Your task to perform on an android device: Clear all items from cart on newegg. Add "acer nitro" to the cart on newegg Image 0: 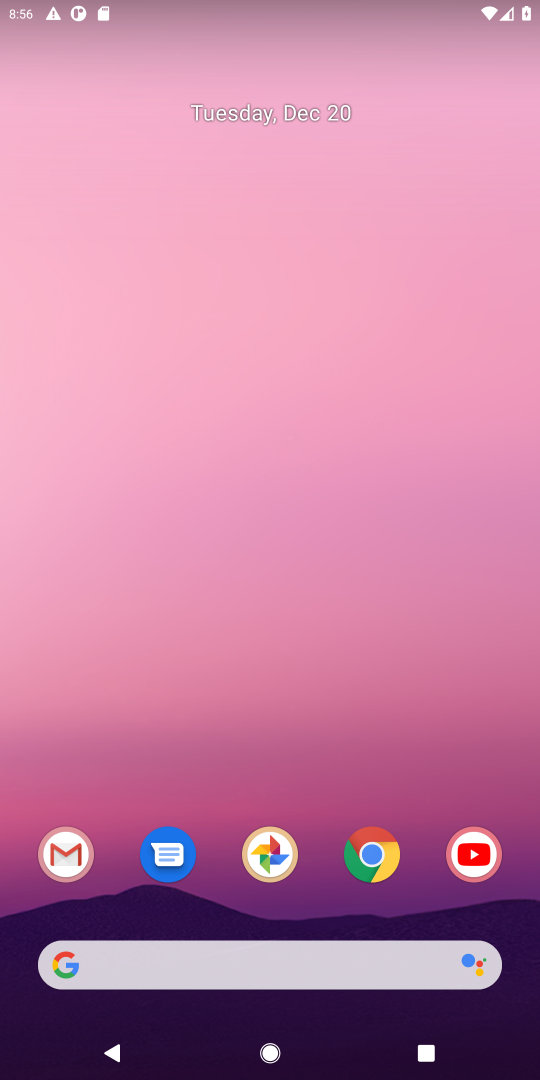
Step 0: click (372, 856)
Your task to perform on an android device: Clear all items from cart on newegg. Add "acer nitro" to the cart on newegg Image 1: 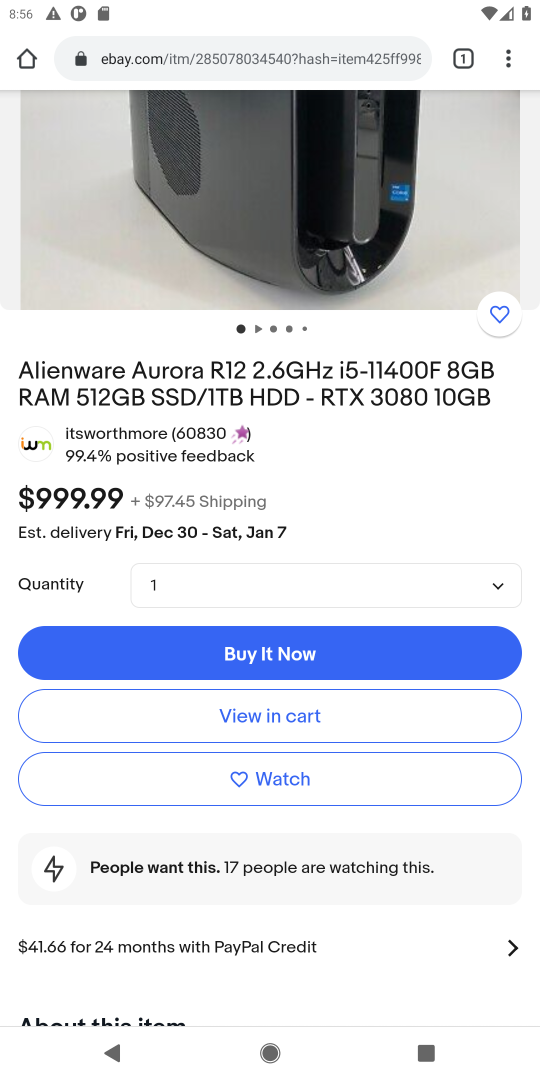
Step 1: click (175, 58)
Your task to perform on an android device: Clear all items from cart on newegg. Add "acer nitro" to the cart on newegg Image 2: 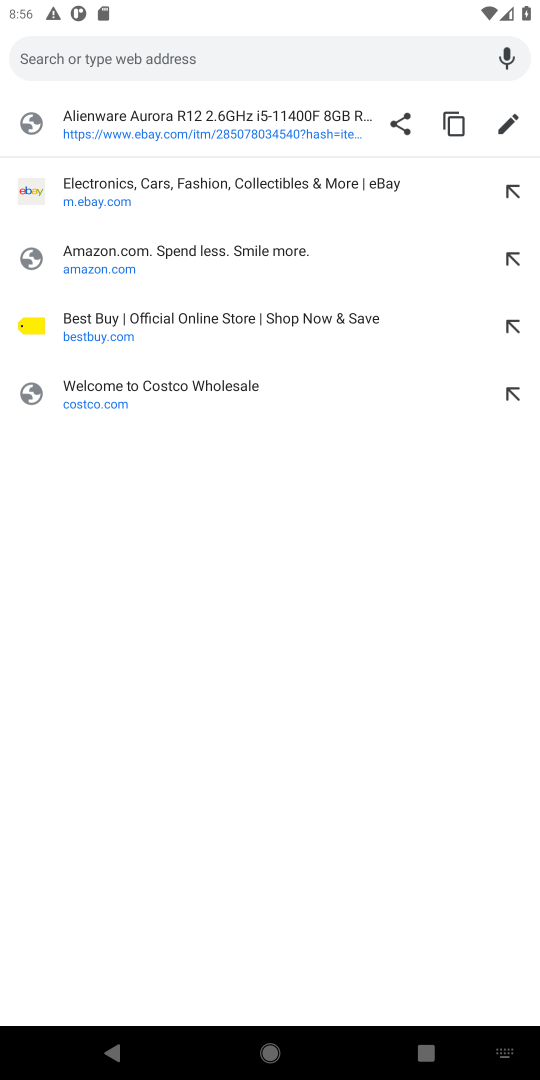
Step 2: type "newegg.com"
Your task to perform on an android device: Clear all items from cart on newegg. Add "acer nitro" to the cart on newegg Image 3: 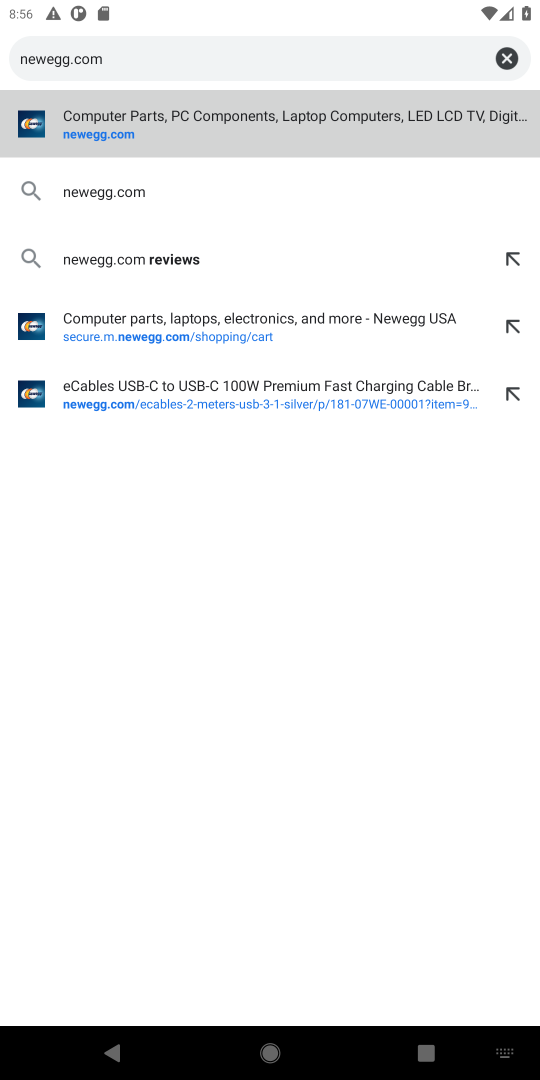
Step 3: click (73, 122)
Your task to perform on an android device: Clear all items from cart on newegg. Add "acer nitro" to the cart on newegg Image 4: 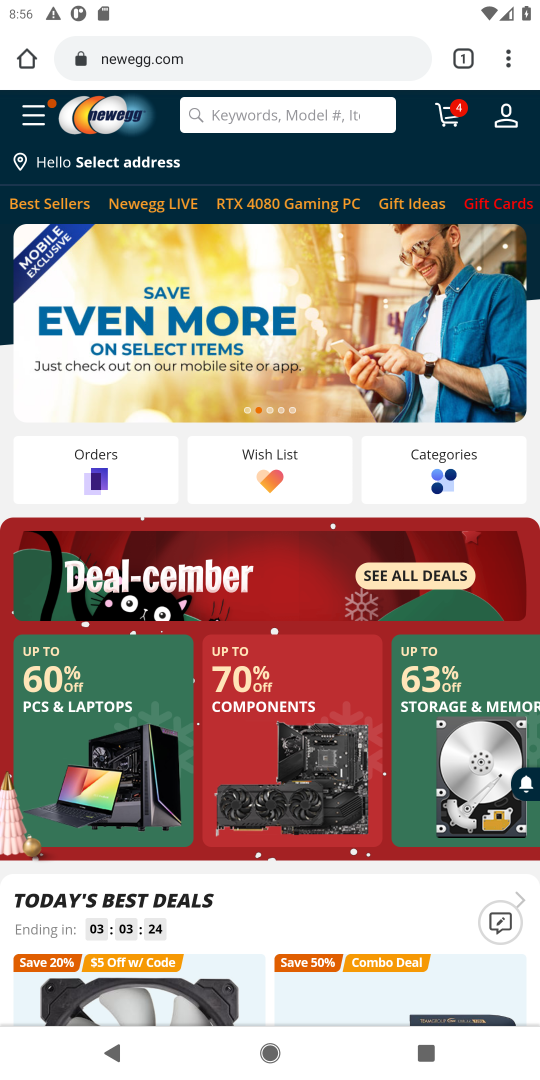
Step 4: click (454, 117)
Your task to perform on an android device: Clear all items from cart on newegg. Add "acer nitro" to the cart on newegg Image 5: 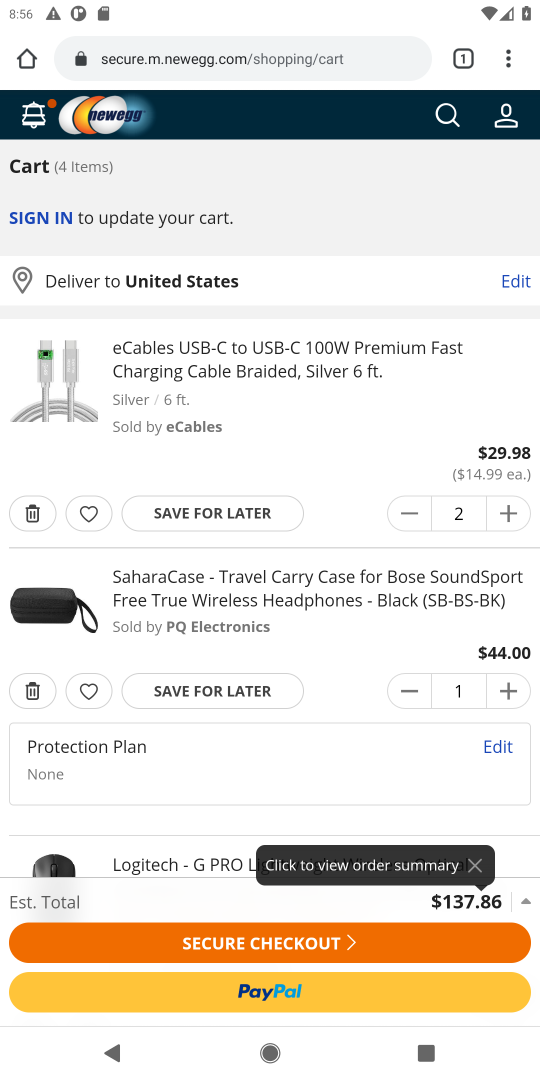
Step 5: click (28, 508)
Your task to perform on an android device: Clear all items from cart on newegg. Add "acer nitro" to the cart on newegg Image 6: 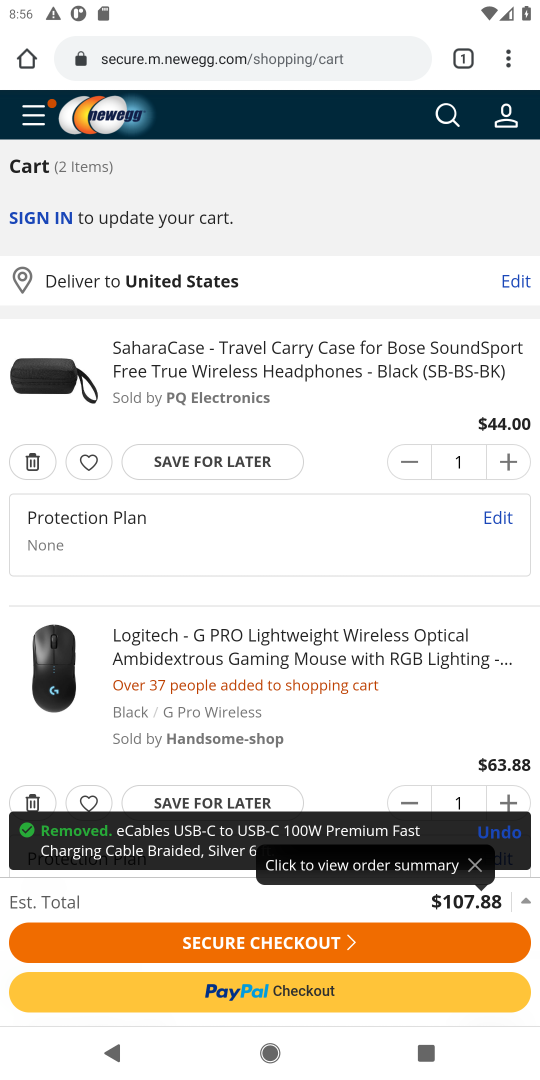
Step 6: click (31, 465)
Your task to perform on an android device: Clear all items from cart on newegg. Add "acer nitro" to the cart on newegg Image 7: 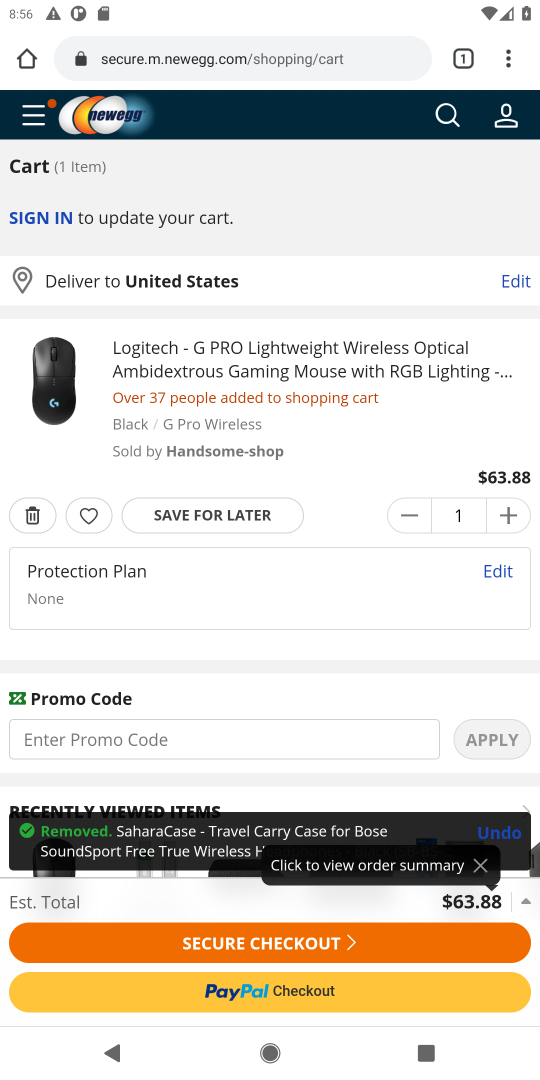
Step 7: click (29, 515)
Your task to perform on an android device: Clear all items from cart on newegg. Add "acer nitro" to the cart on newegg Image 8: 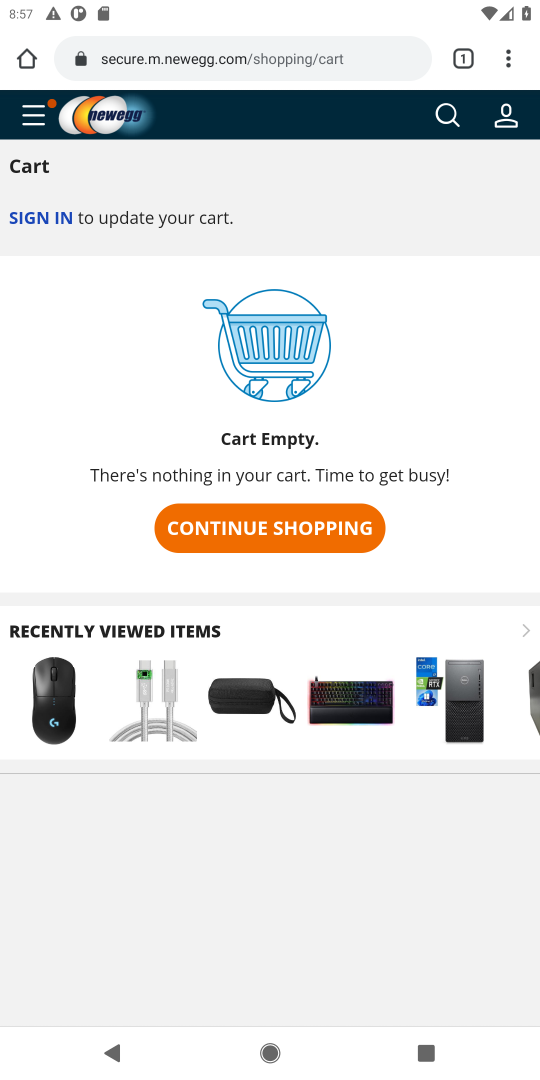
Step 8: click (441, 117)
Your task to perform on an android device: Clear all items from cart on newegg. Add "acer nitro" to the cart on newegg Image 9: 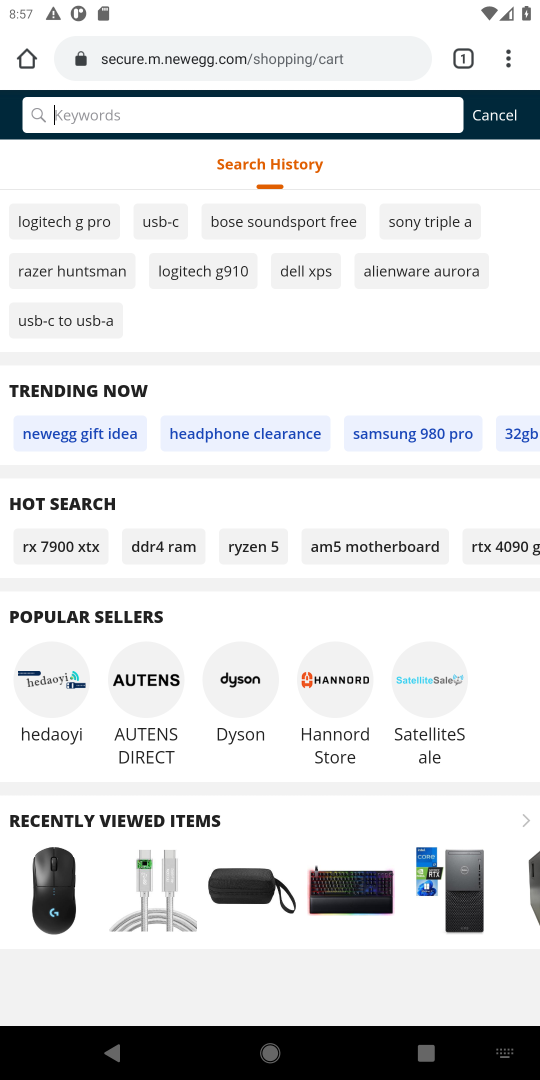
Step 9: type "acer nitro"
Your task to perform on an android device: Clear all items from cart on newegg. Add "acer nitro" to the cart on newegg Image 10: 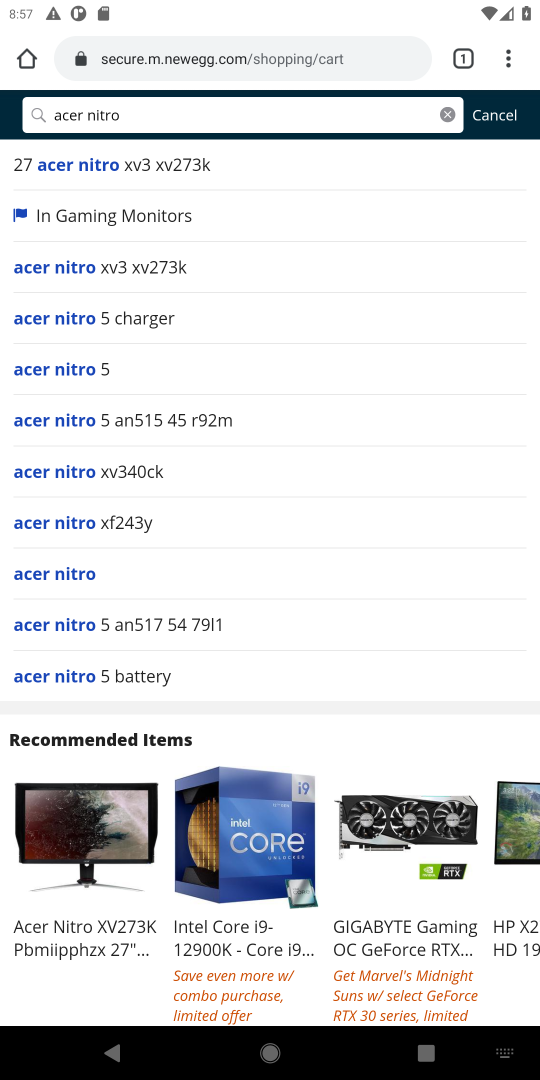
Step 10: click (48, 576)
Your task to perform on an android device: Clear all items from cart on newegg. Add "acer nitro" to the cart on newegg Image 11: 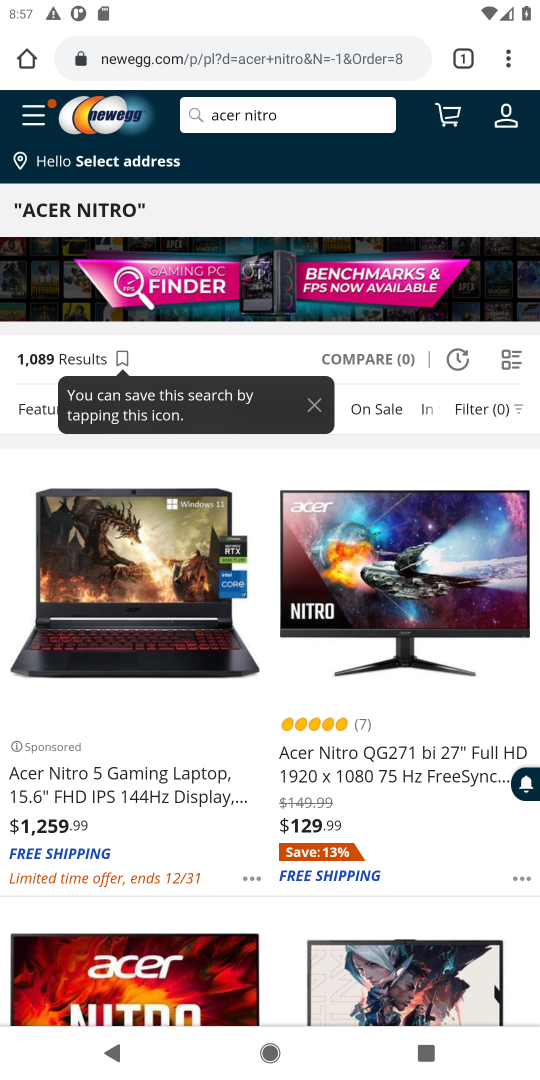
Step 11: click (77, 788)
Your task to perform on an android device: Clear all items from cart on newegg. Add "acer nitro" to the cart on newegg Image 12: 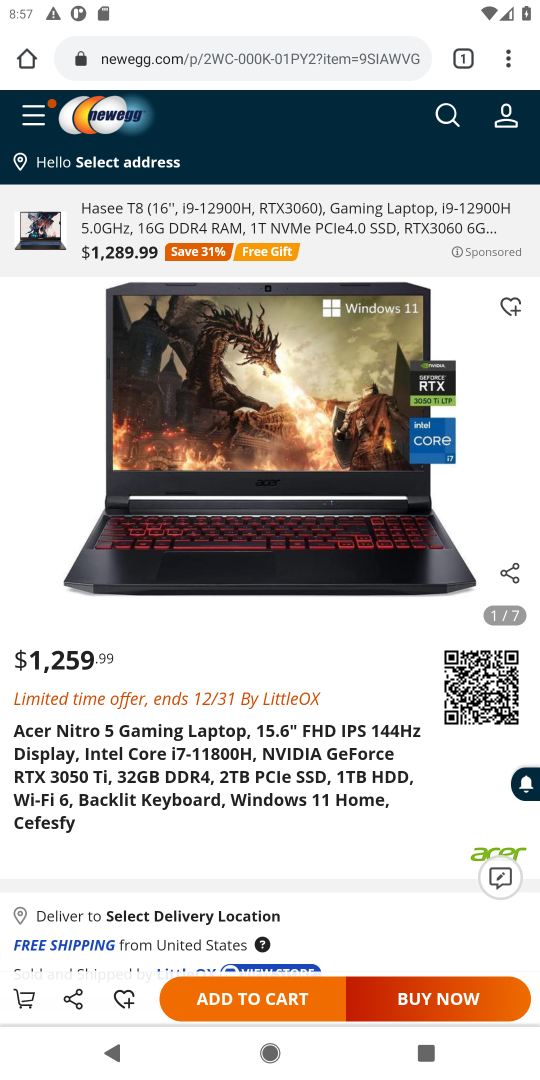
Step 12: click (241, 1001)
Your task to perform on an android device: Clear all items from cart on newegg. Add "acer nitro" to the cart on newegg Image 13: 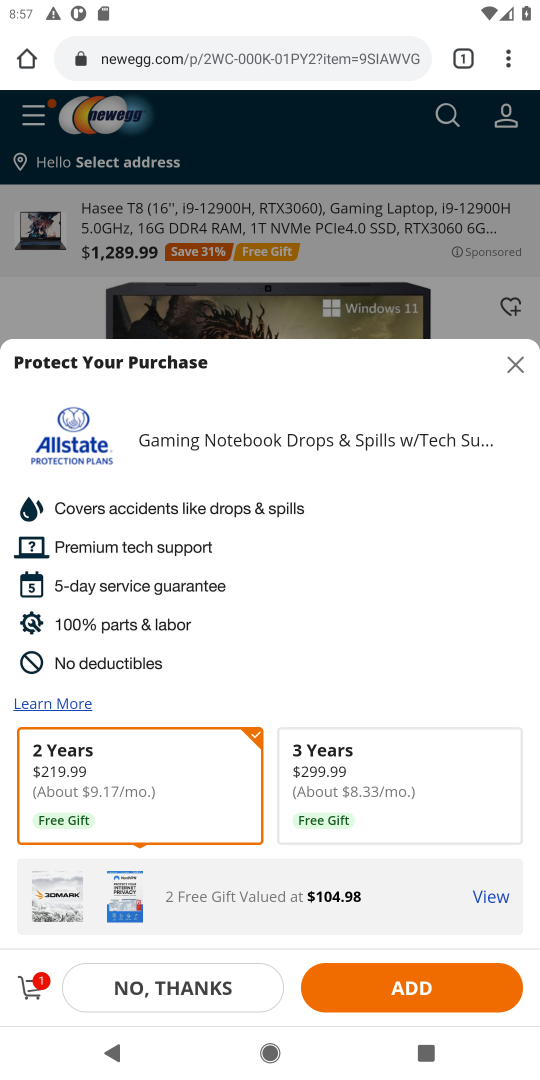
Step 13: task complete